Your task to perform on an android device: open sync settings in chrome Image 0: 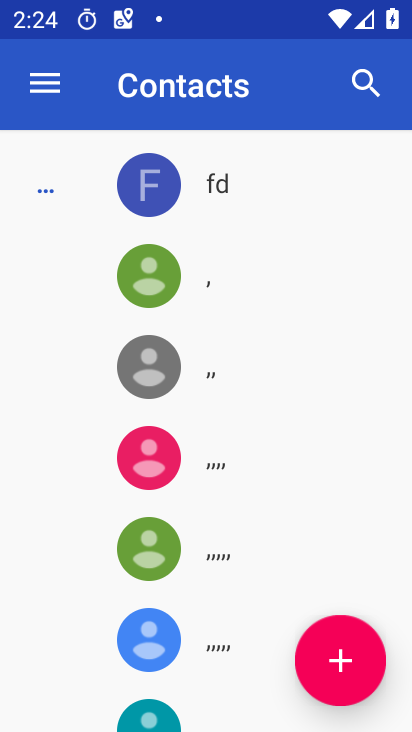
Step 0: press home button
Your task to perform on an android device: open sync settings in chrome Image 1: 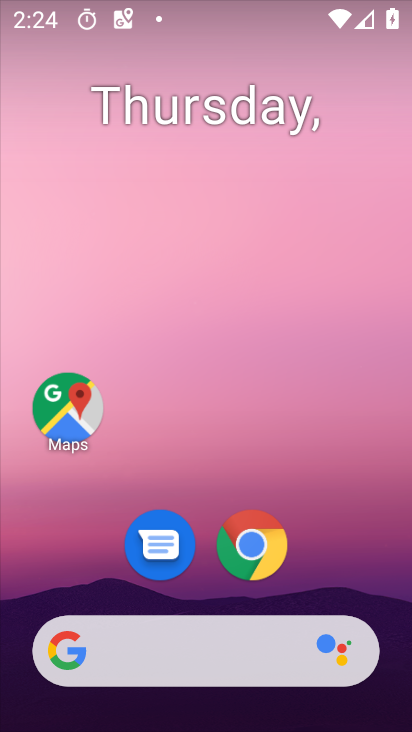
Step 1: click (252, 545)
Your task to perform on an android device: open sync settings in chrome Image 2: 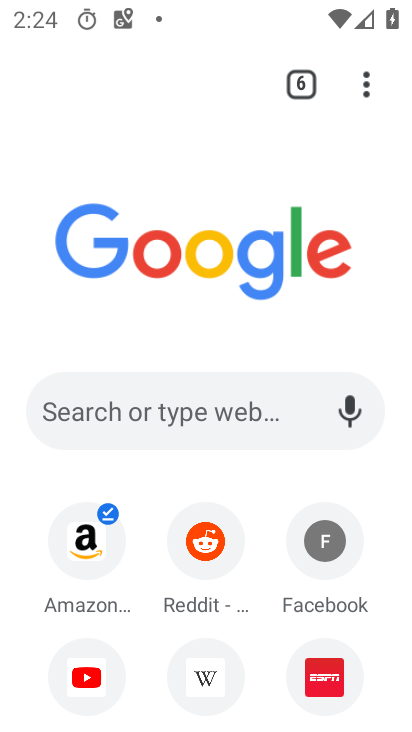
Step 2: click (365, 91)
Your task to perform on an android device: open sync settings in chrome Image 3: 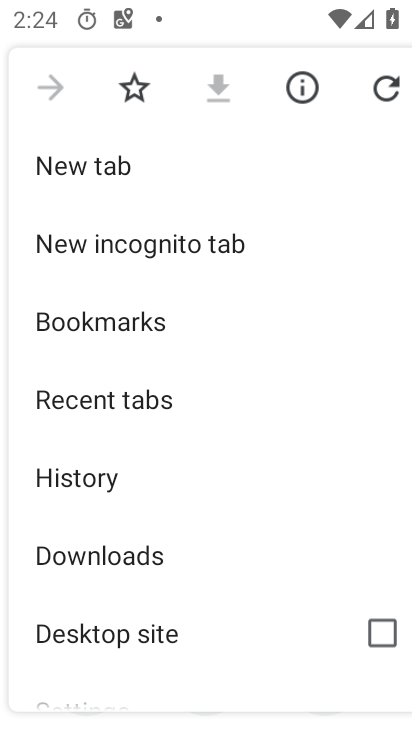
Step 3: drag from (110, 643) to (109, 388)
Your task to perform on an android device: open sync settings in chrome Image 4: 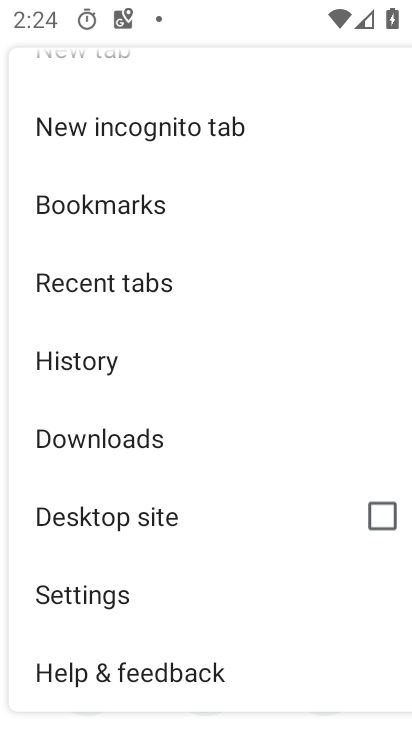
Step 4: click (72, 594)
Your task to perform on an android device: open sync settings in chrome Image 5: 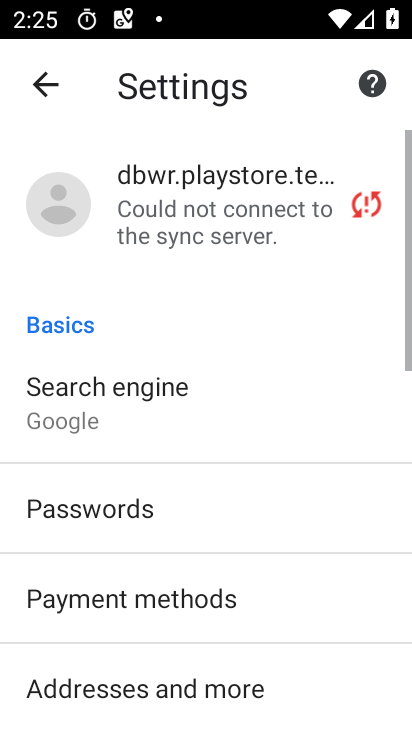
Step 5: drag from (136, 646) to (136, 279)
Your task to perform on an android device: open sync settings in chrome Image 6: 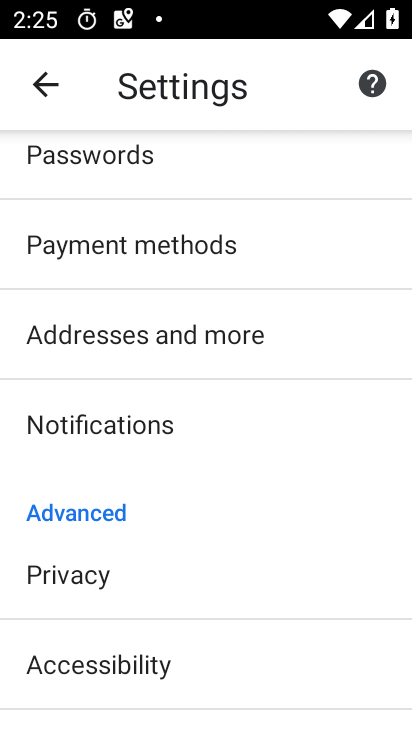
Step 6: drag from (149, 662) to (143, 327)
Your task to perform on an android device: open sync settings in chrome Image 7: 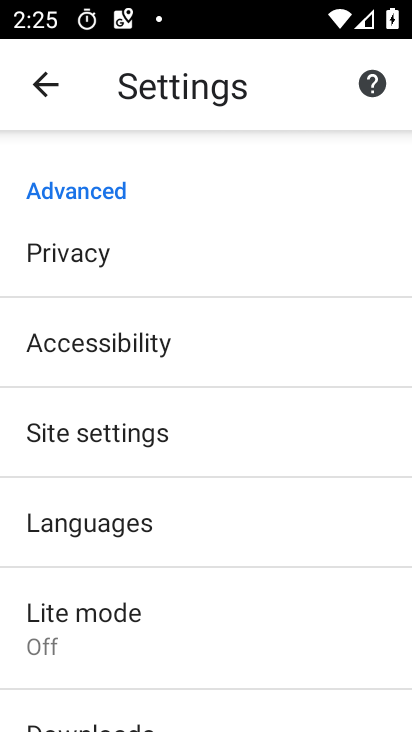
Step 7: drag from (82, 677) to (73, 264)
Your task to perform on an android device: open sync settings in chrome Image 8: 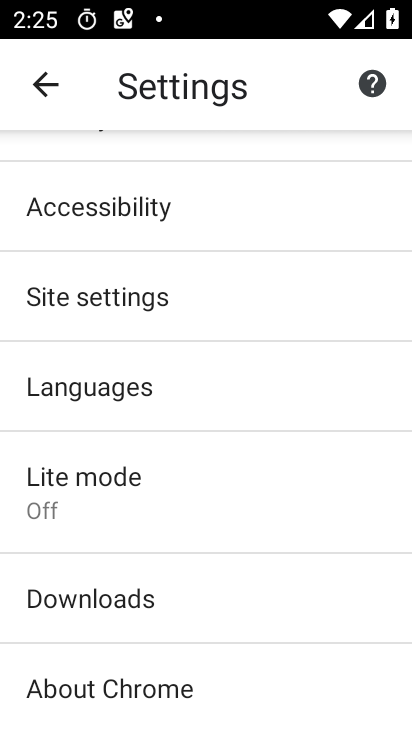
Step 8: click (112, 294)
Your task to perform on an android device: open sync settings in chrome Image 9: 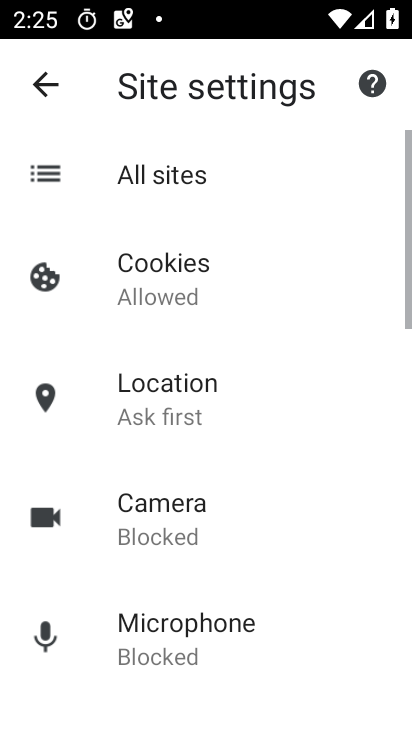
Step 9: drag from (190, 661) to (196, 243)
Your task to perform on an android device: open sync settings in chrome Image 10: 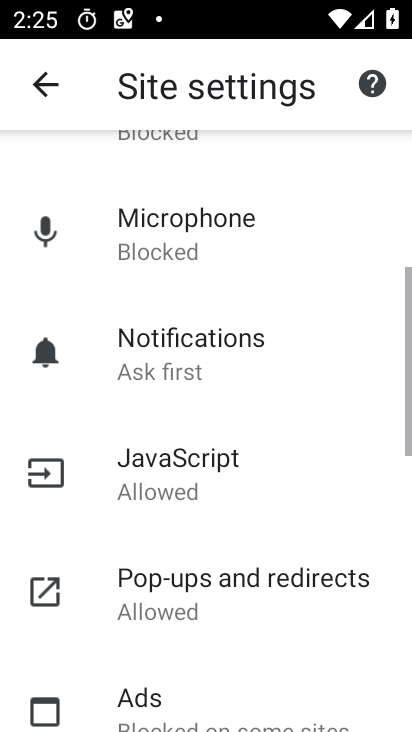
Step 10: drag from (185, 652) to (190, 288)
Your task to perform on an android device: open sync settings in chrome Image 11: 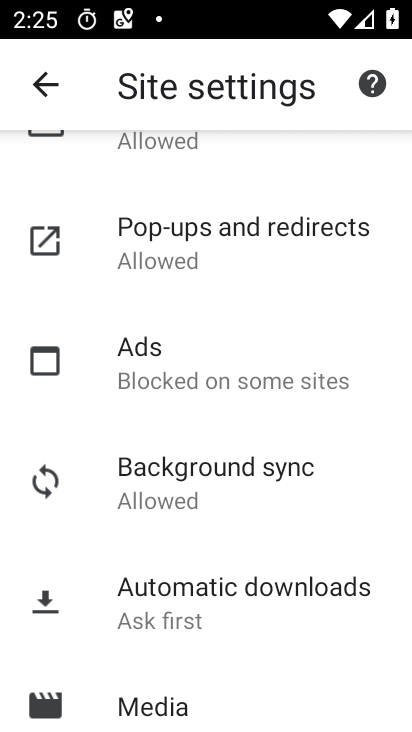
Step 11: drag from (167, 660) to (183, 266)
Your task to perform on an android device: open sync settings in chrome Image 12: 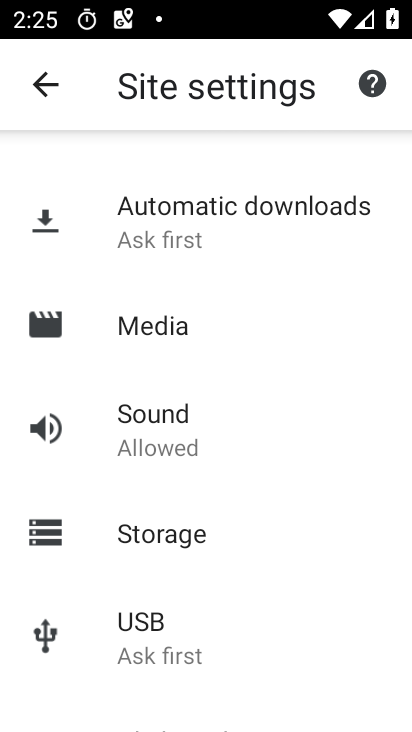
Step 12: drag from (259, 189) to (285, 574)
Your task to perform on an android device: open sync settings in chrome Image 13: 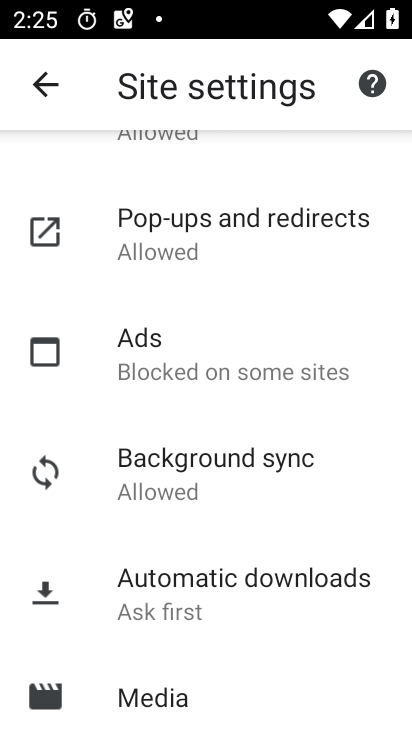
Step 13: drag from (238, 280) to (232, 590)
Your task to perform on an android device: open sync settings in chrome Image 14: 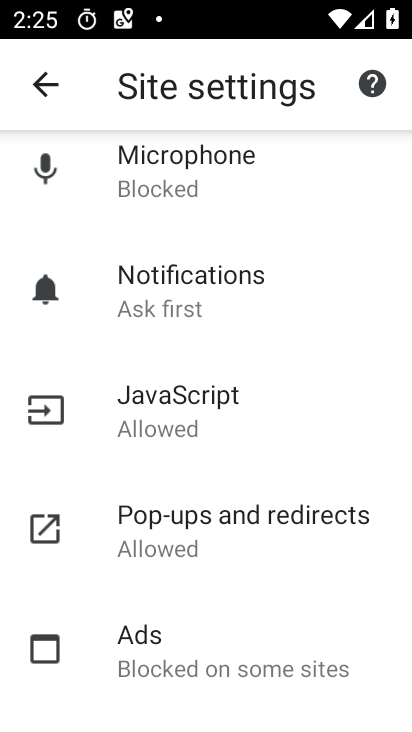
Step 14: drag from (231, 228) to (224, 523)
Your task to perform on an android device: open sync settings in chrome Image 15: 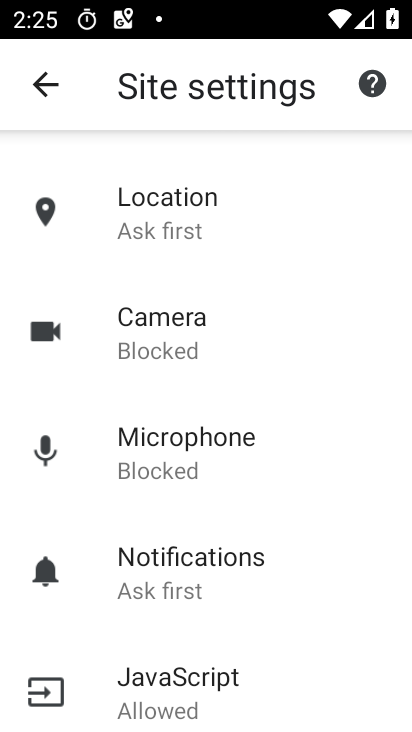
Step 15: drag from (208, 223) to (204, 189)
Your task to perform on an android device: open sync settings in chrome Image 16: 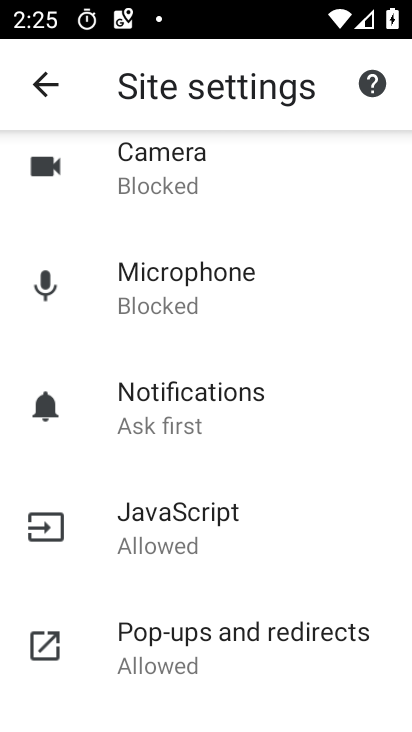
Step 16: drag from (221, 668) to (243, 275)
Your task to perform on an android device: open sync settings in chrome Image 17: 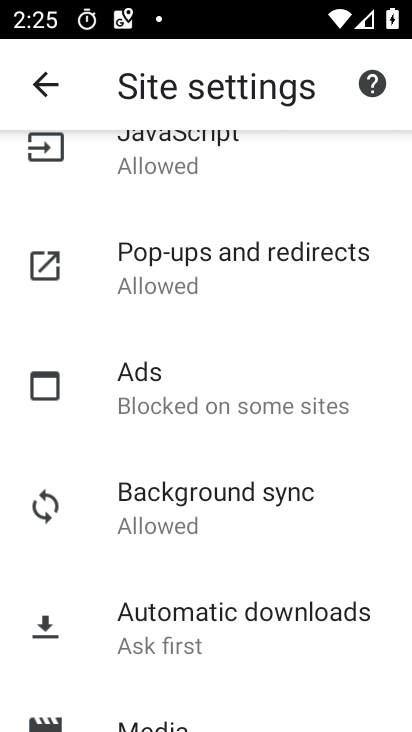
Step 17: click (207, 499)
Your task to perform on an android device: open sync settings in chrome Image 18: 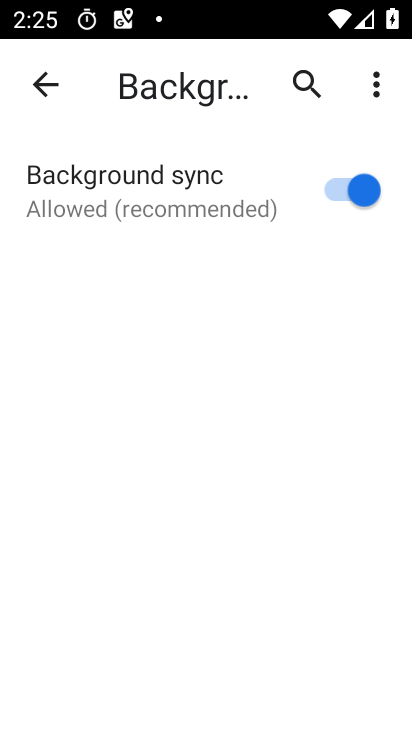
Step 18: task complete